Your task to perform on an android device: show emergency info Image 0: 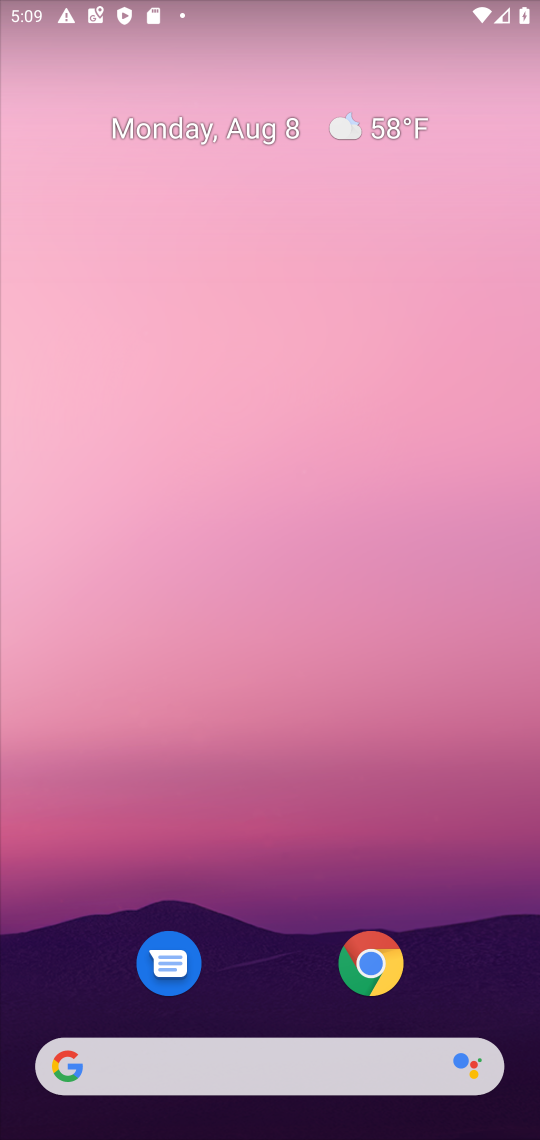
Step 0: drag from (313, 938) to (268, 349)
Your task to perform on an android device: show emergency info Image 1: 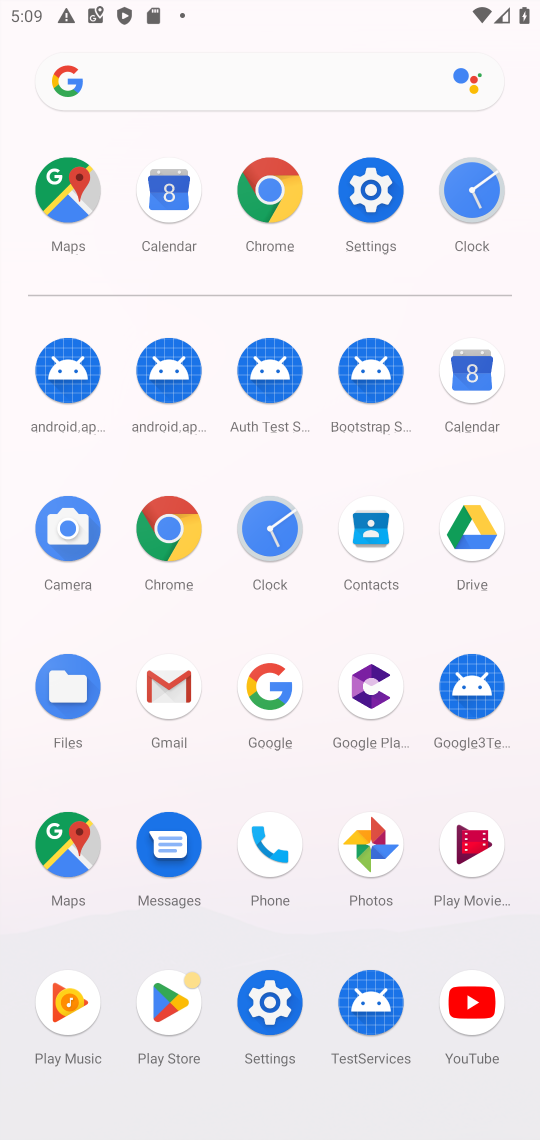
Step 1: click (371, 198)
Your task to perform on an android device: show emergency info Image 2: 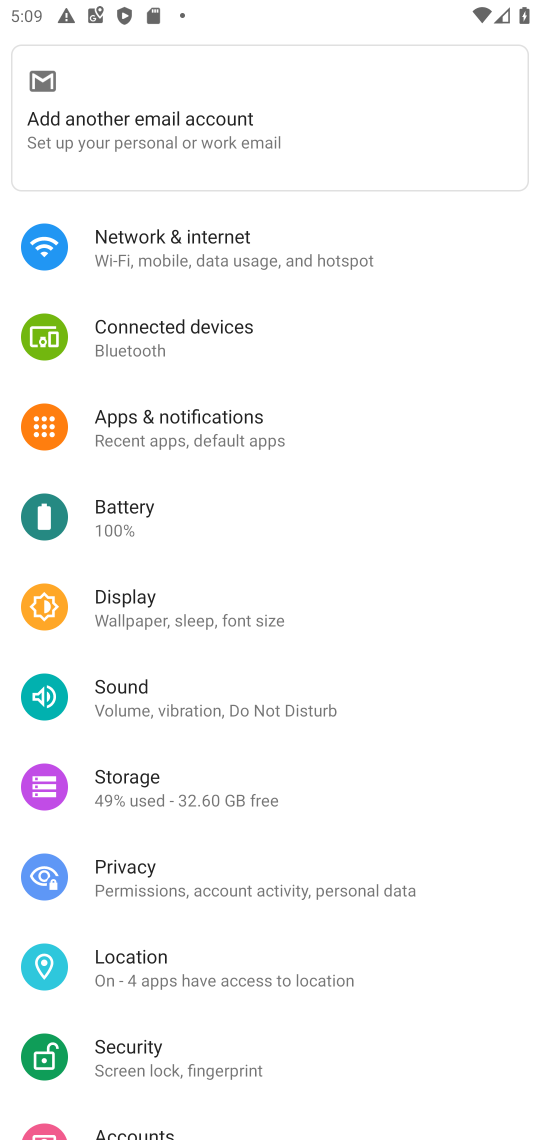
Step 2: drag from (141, 846) to (52, 233)
Your task to perform on an android device: show emergency info Image 3: 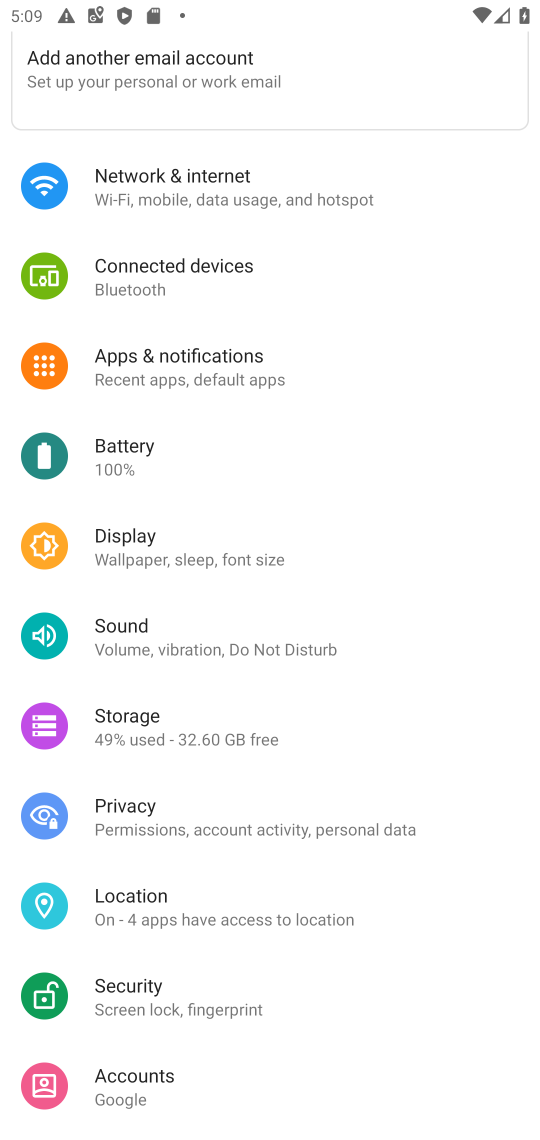
Step 3: drag from (112, 875) to (112, 291)
Your task to perform on an android device: show emergency info Image 4: 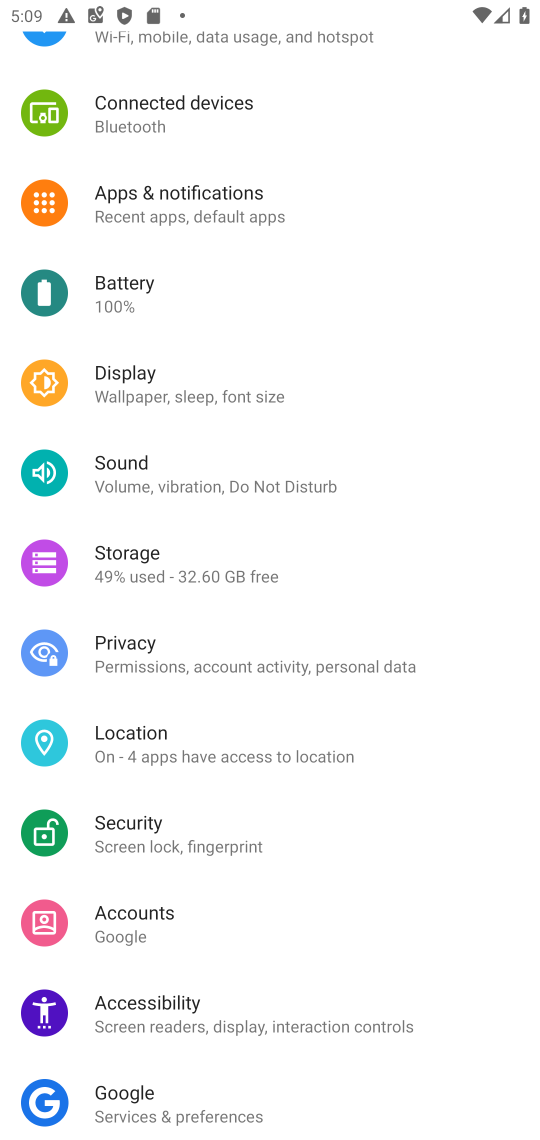
Step 4: drag from (210, 1025) to (105, 238)
Your task to perform on an android device: show emergency info Image 5: 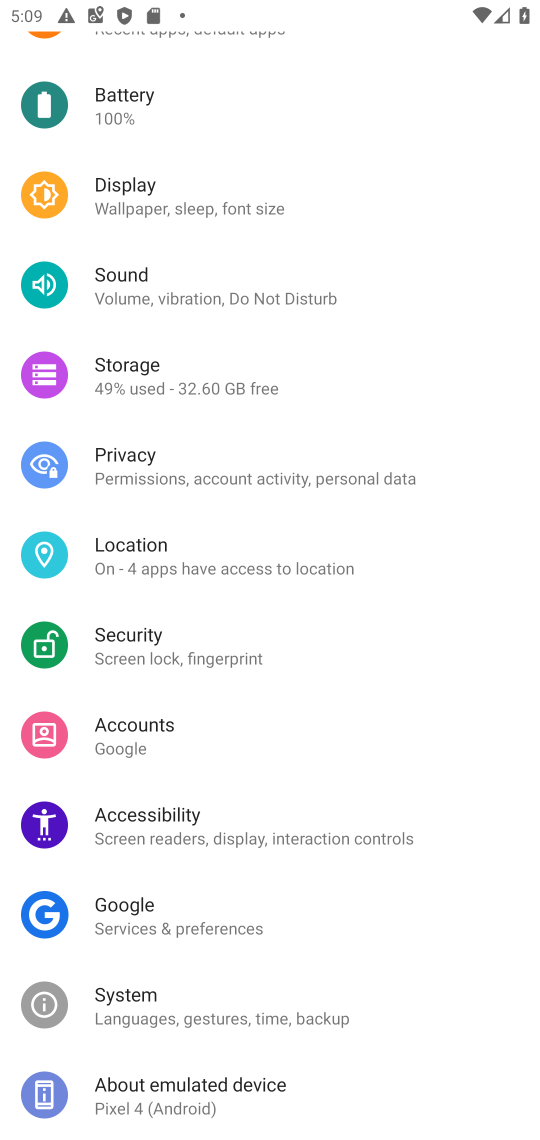
Step 5: click (156, 1078)
Your task to perform on an android device: show emergency info Image 6: 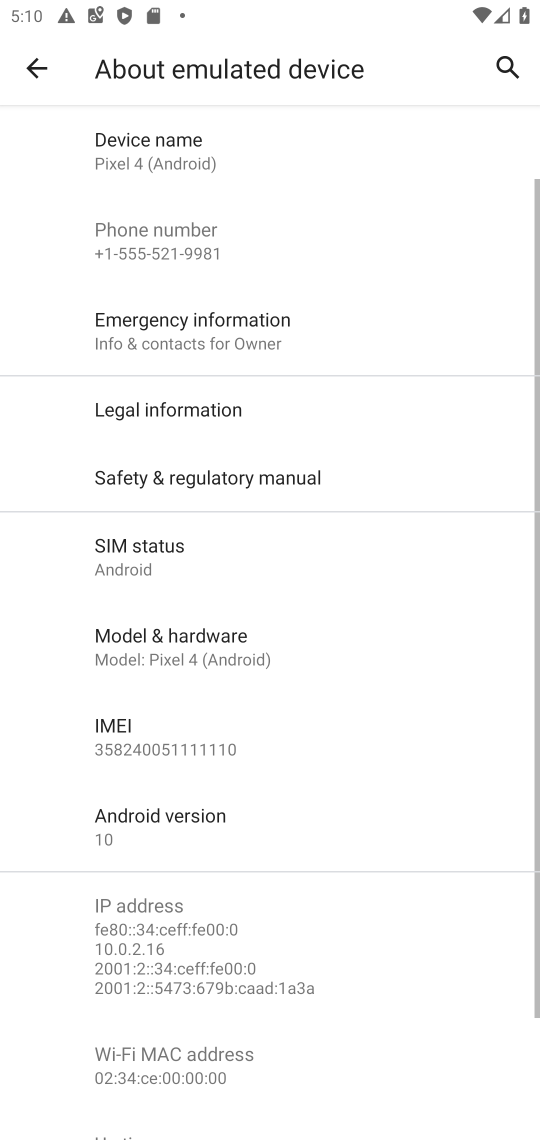
Step 6: click (307, 326)
Your task to perform on an android device: show emergency info Image 7: 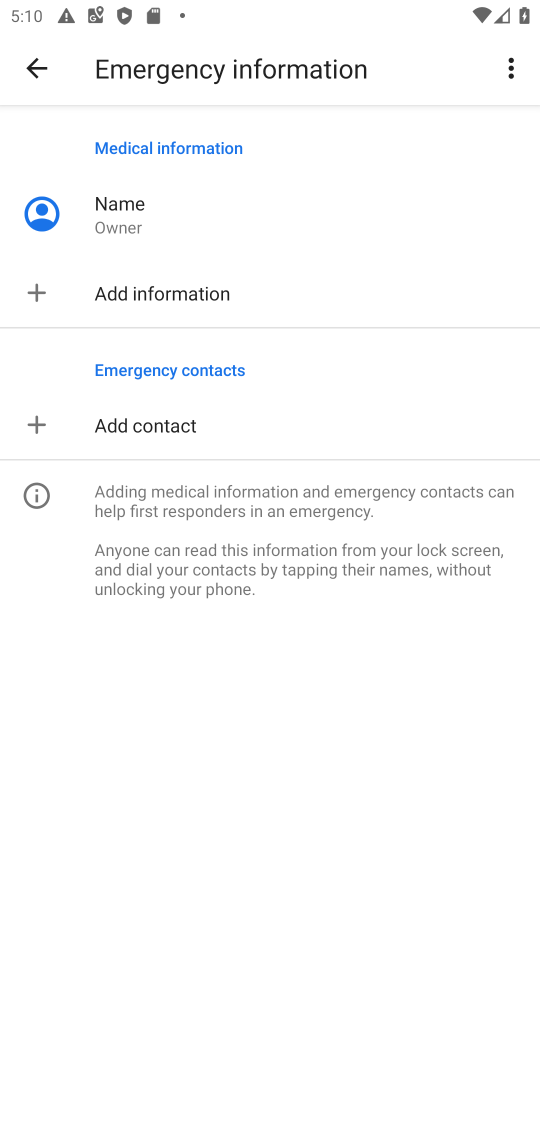
Step 7: task complete